Your task to perform on an android device: Open notification settings Image 0: 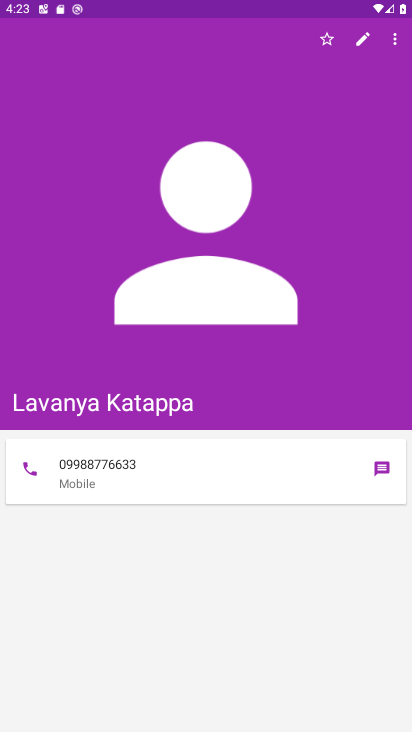
Step 0: press back button
Your task to perform on an android device: Open notification settings Image 1: 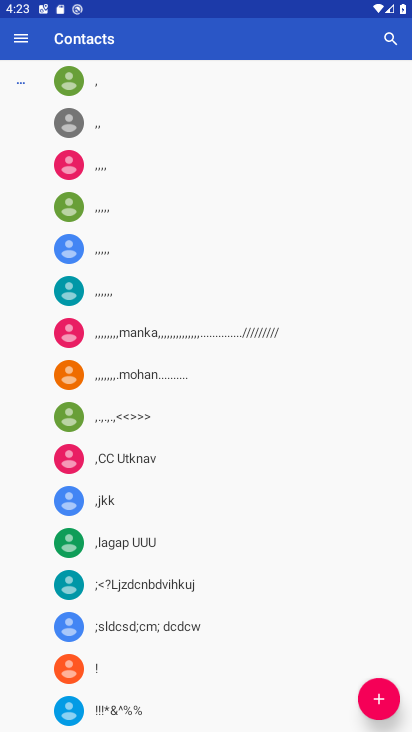
Step 1: press back button
Your task to perform on an android device: Open notification settings Image 2: 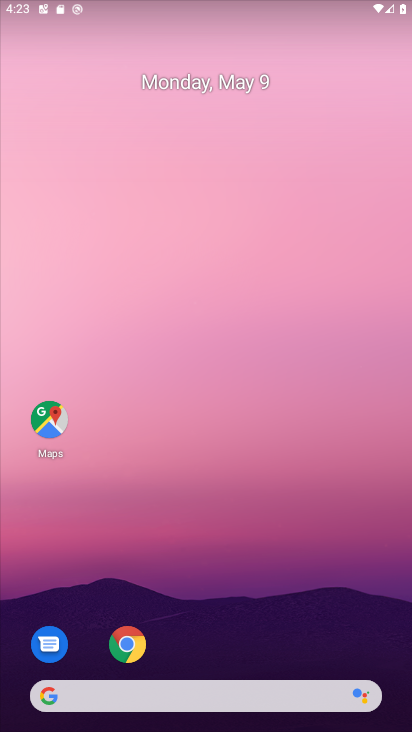
Step 2: press home button
Your task to perform on an android device: Open notification settings Image 3: 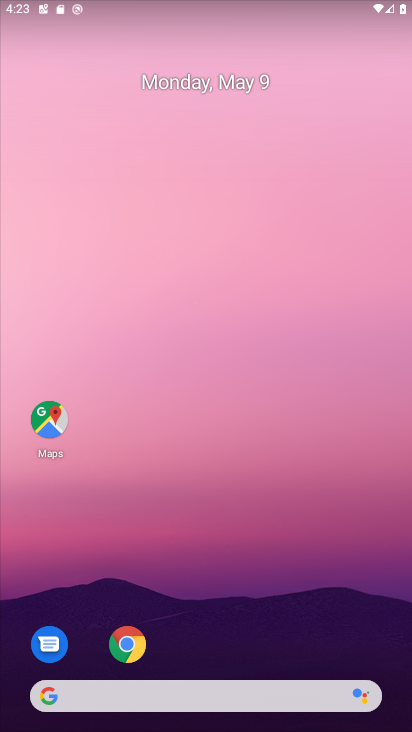
Step 3: drag from (233, 587) to (168, 48)
Your task to perform on an android device: Open notification settings Image 4: 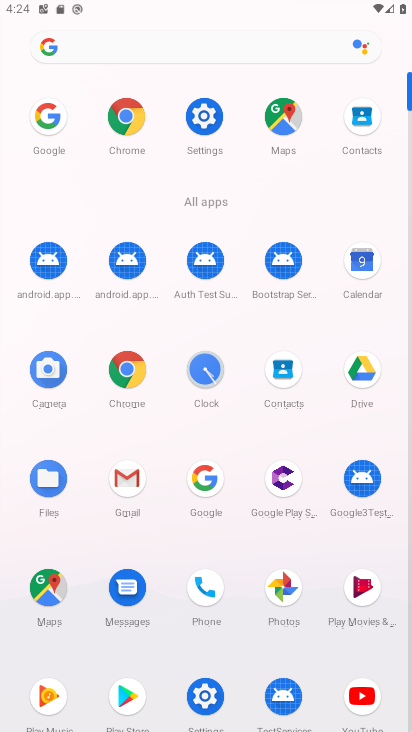
Step 4: click (204, 116)
Your task to perform on an android device: Open notification settings Image 5: 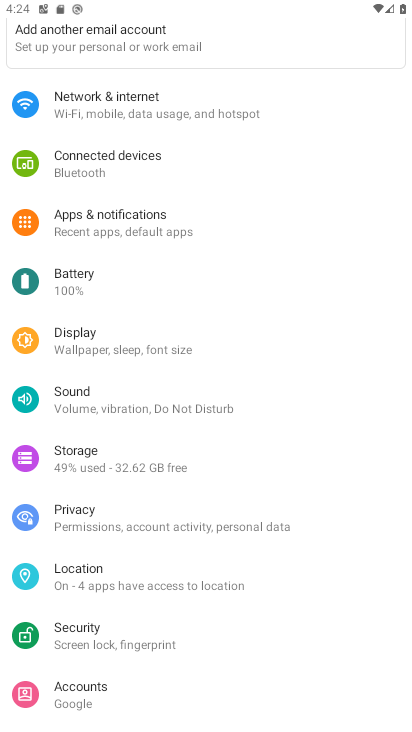
Step 5: click (103, 228)
Your task to perform on an android device: Open notification settings Image 6: 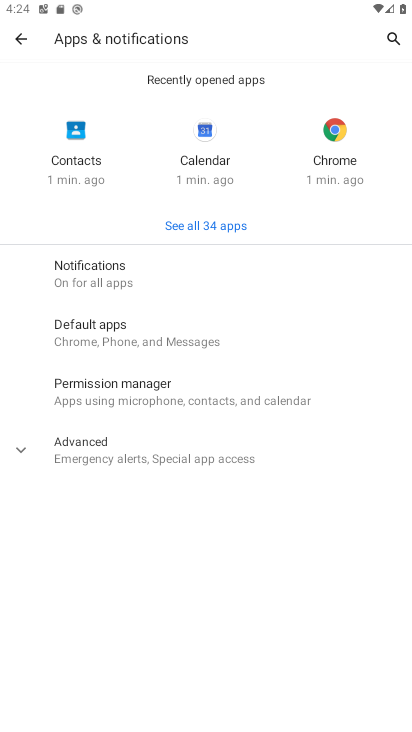
Step 6: click (86, 269)
Your task to perform on an android device: Open notification settings Image 7: 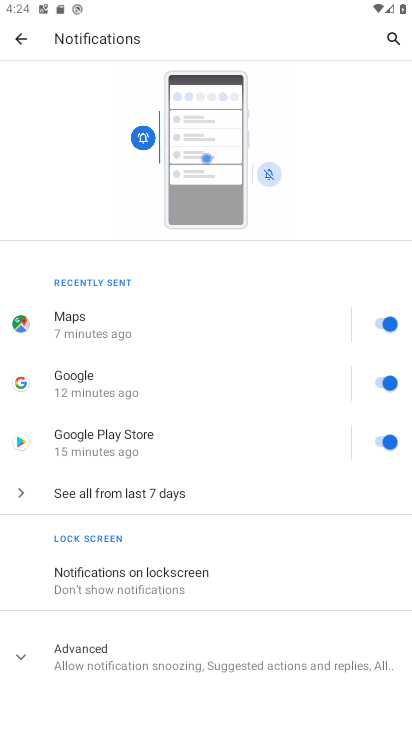
Step 7: task complete